Your task to perform on an android device: What is the recent news? Image 0: 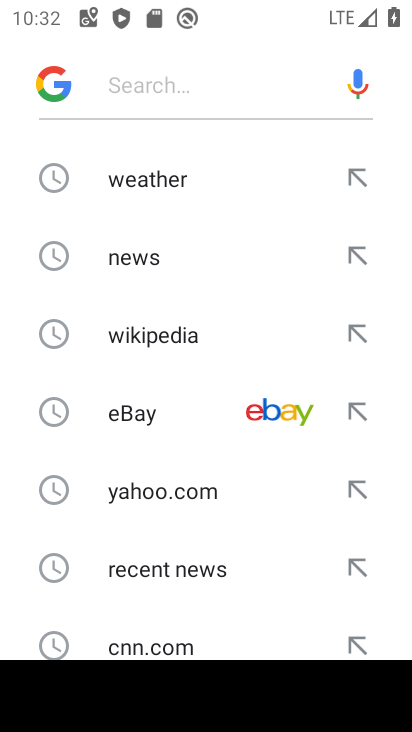
Step 0: type "news"
Your task to perform on an android device: What is the recent news? Image 1: 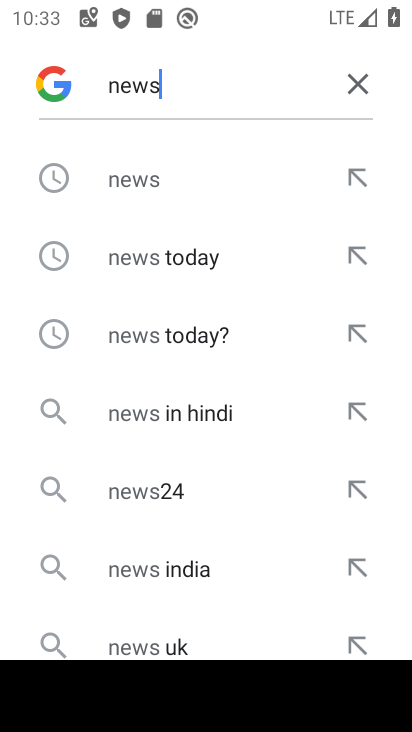
Step 1: click (155, 185)
Your task to perform on an android device: What is the recent news? Image 2: 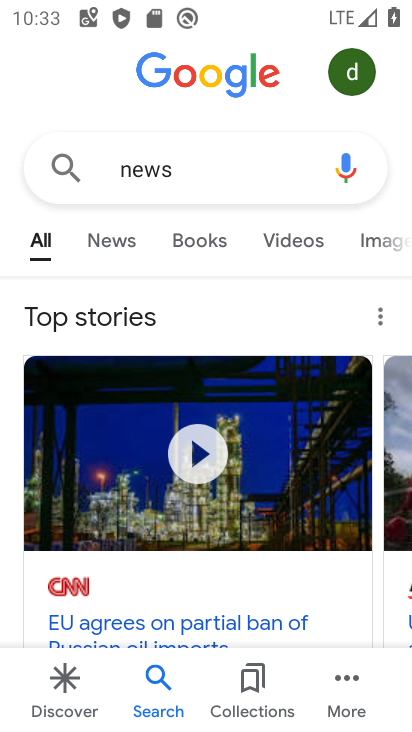
Step 2: click (131, 238)
Your task to perform on an android device: What is the recent news? Image 3: 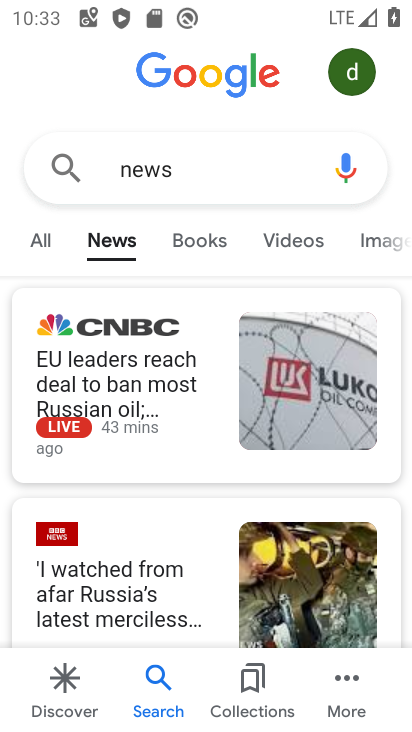
Step 3: task complete